Your task to perform on an android device: empty trash in the gmail app Image 0: 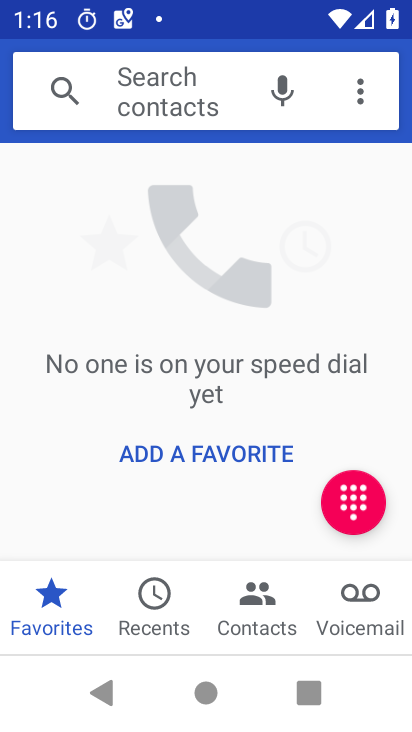
Step 0: press home button
Your task to perform on an android device: empty trash in the gmail app Image 1: 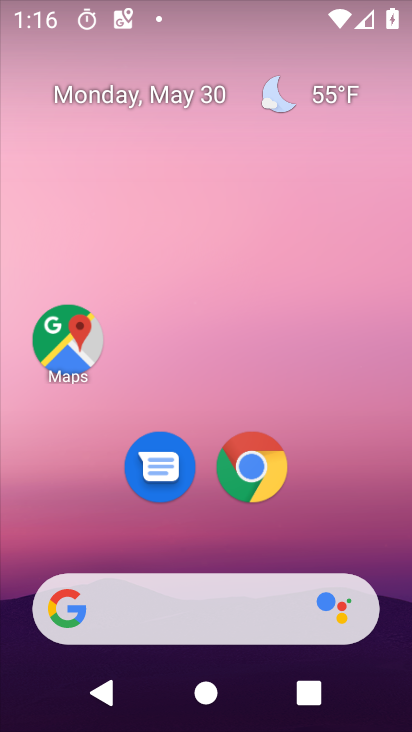
Step 1: drag from (378, 605) to (318, 139)
Your task to perform on an android device: empty trash in the gmail app Image 2: 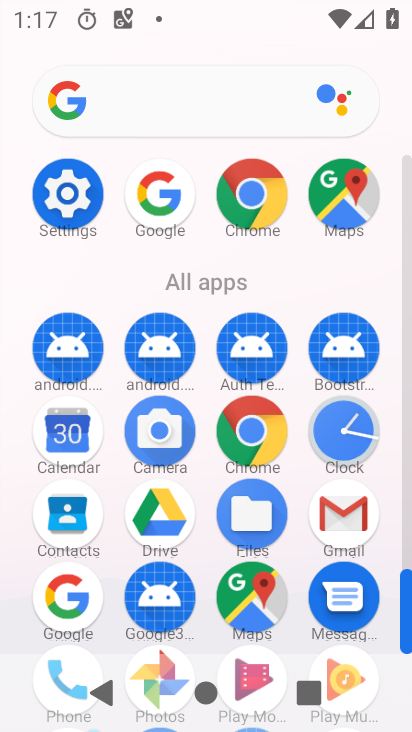
Step 2: click (327, 522)
Your task to perform on an android device: empty trash in the gmail app Image 3: 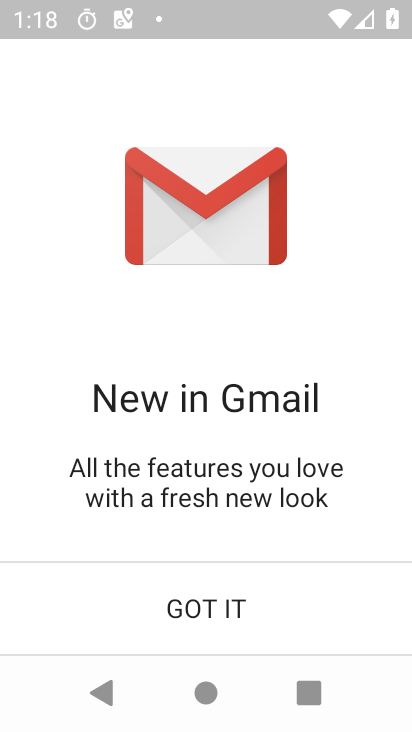
Step 3: click (197, 608)
Your task to perform on an android device: empty trash in the gmail app Image 4: 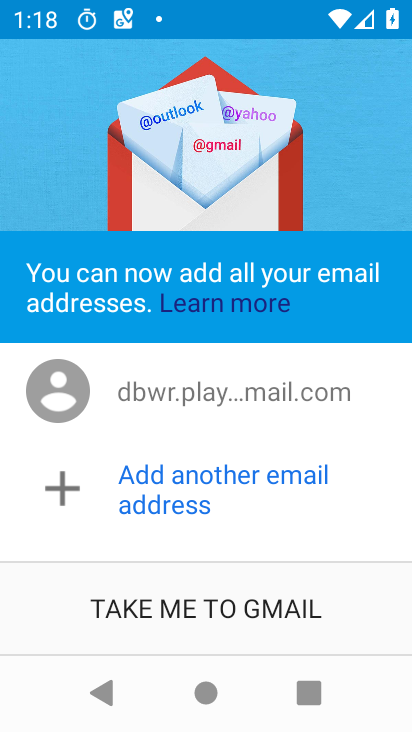
Step 4: click (196, 607)
Your task to perform on an android device: empty trash in the gmail app Image 5: 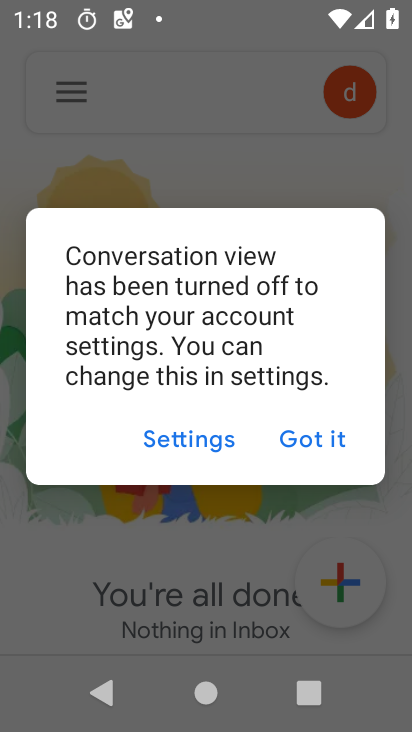
Step 5: click (340, 437)
Your task to perform on an android device: empty trash in the gmail app Image 6: 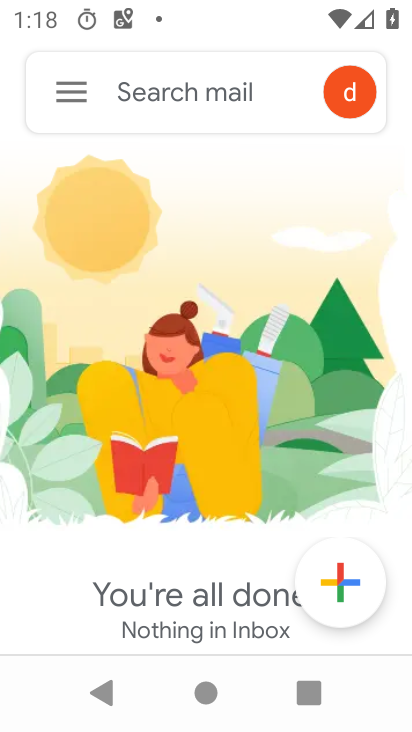
Step 6: click (62, 89)
Your task to perform on an android device: empty trash in the gmail app Image 7: 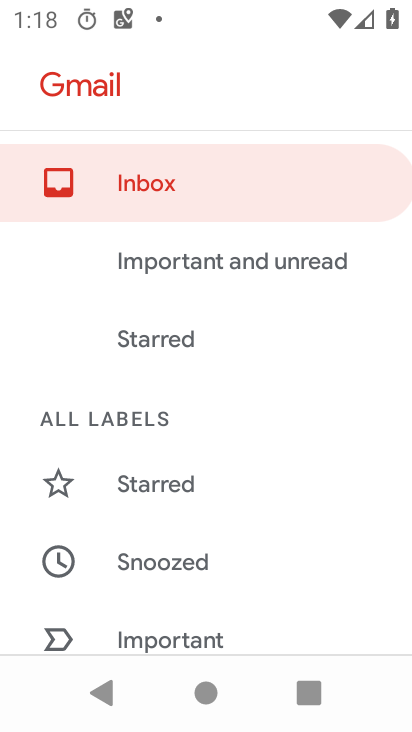
Step 7: drag from (254, 600) to (190, 276)
Your task to perform on an android device: empty trash in the gmail app Image 8: 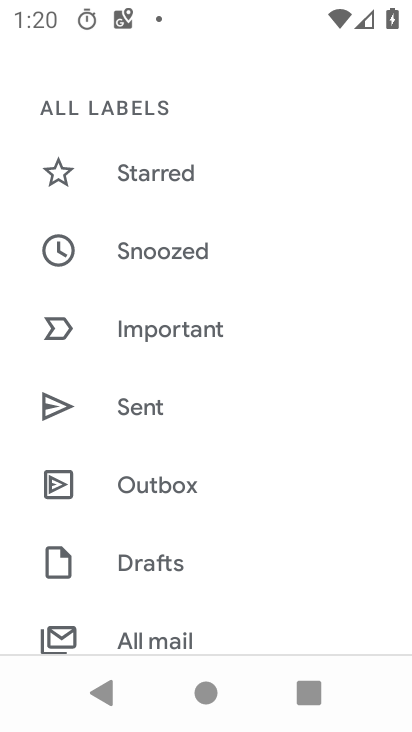
Step 8: drag from (303, 623) to (353, 281)
Your task to perform on an android device: empty trash in the gmail app Image 9: 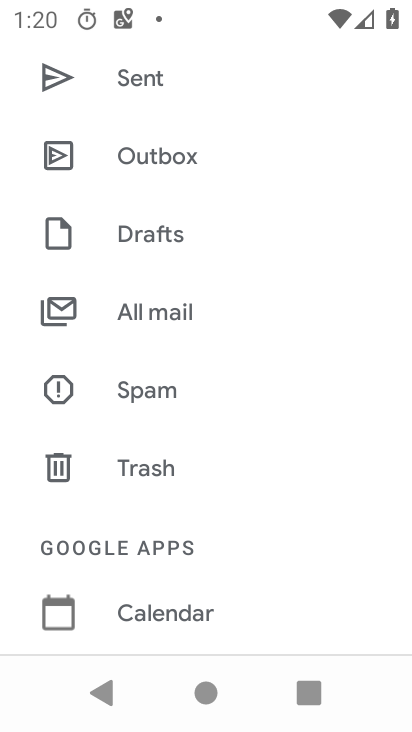
Step 9: click (102, 451)
Your task to perform on an android device: empty trash in the gmail app Image 10: 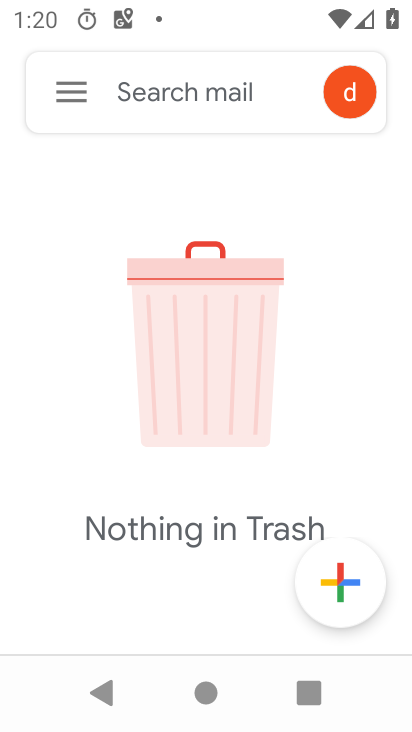
Step 10: task complete